Your task to perform on an android device: turn off notifications in google photos Image 0: 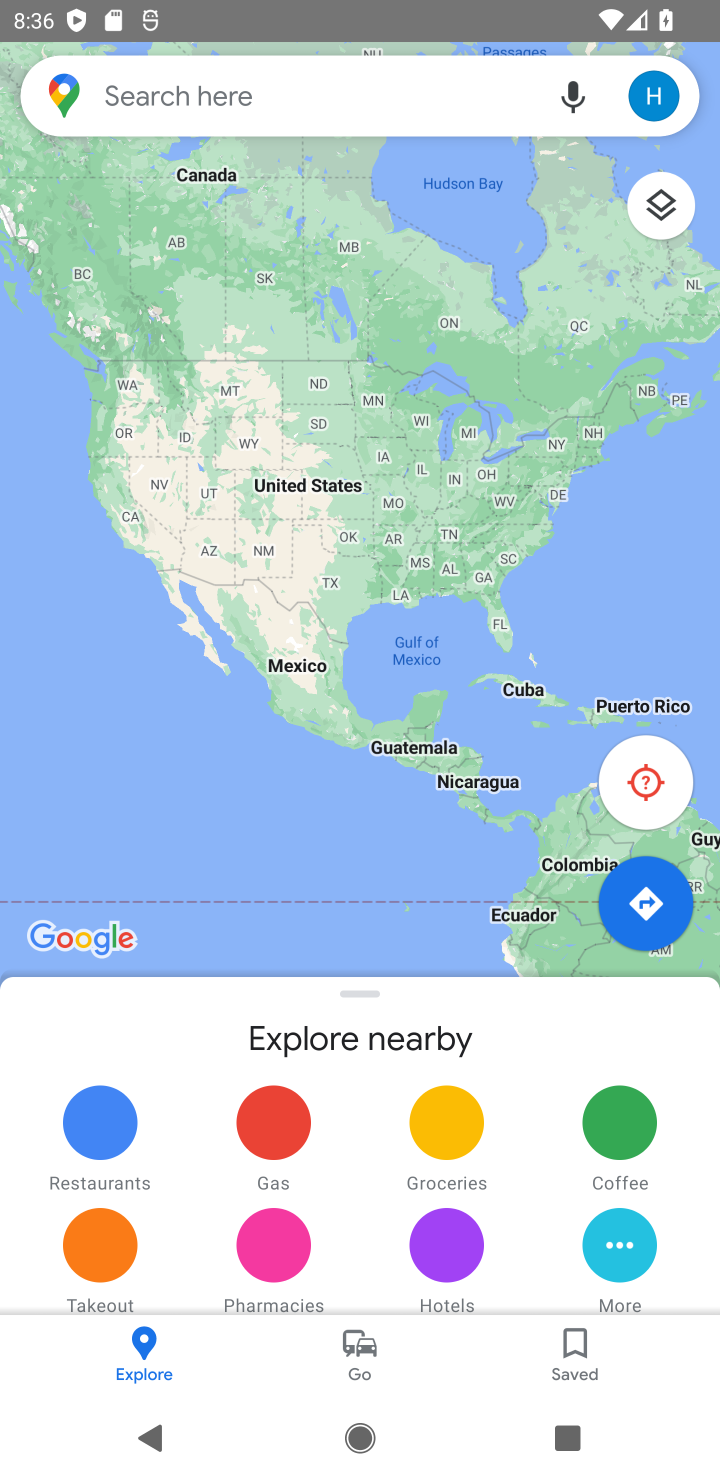
Step 0: press home button
Your task to perform on an android device: turn off notifications in google photos Image 1: 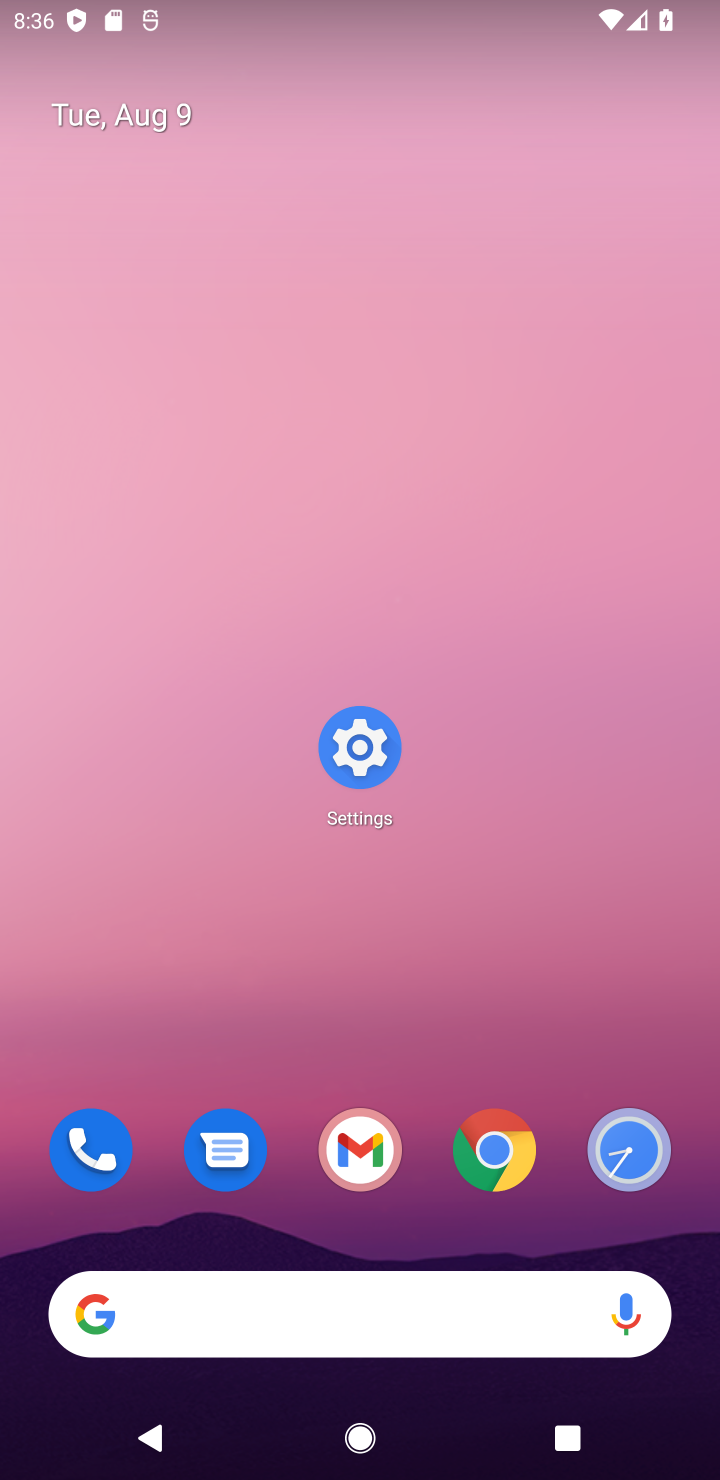
Step 1: drag from (435, 1066) to (619, 114)
Your task to perform on an android device: turn off notifications in google photos Image 2: 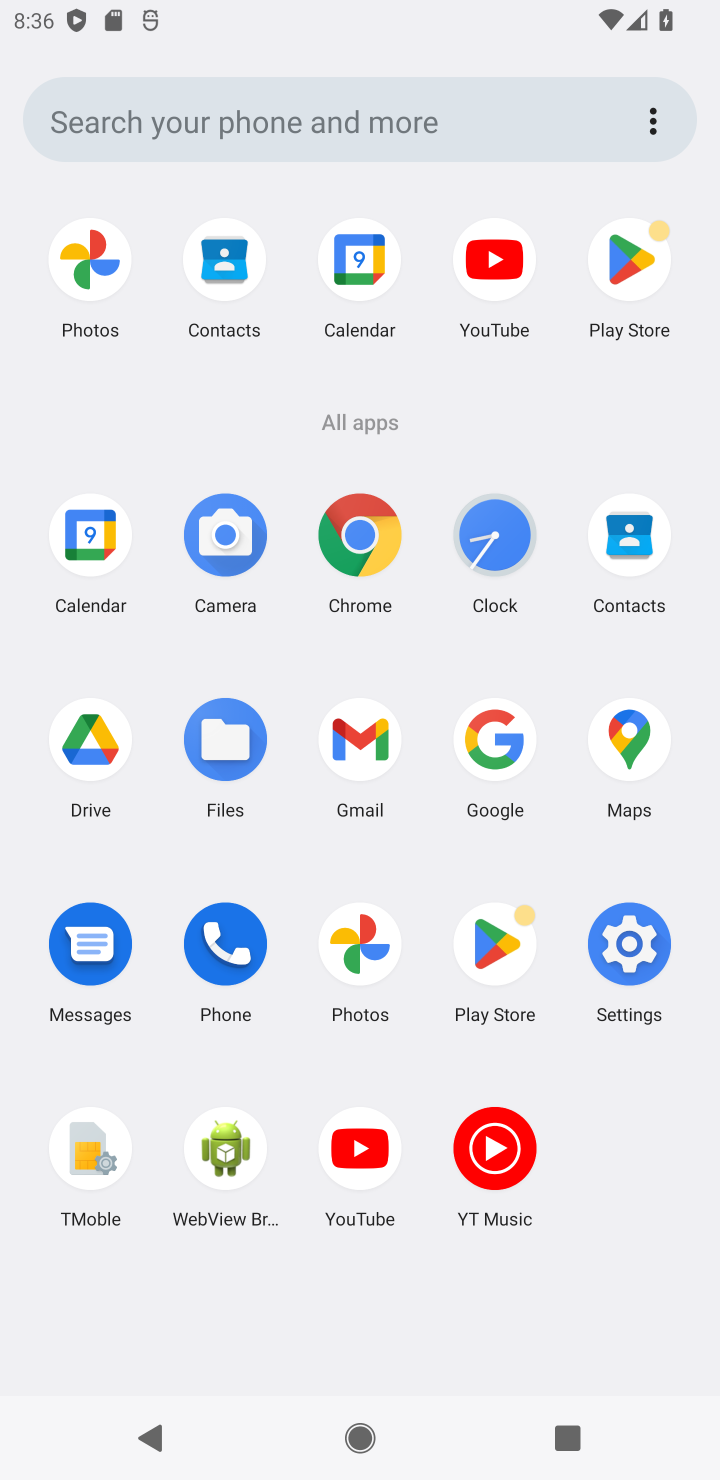
Step 2: click (374, 951)
Your task to perform on an android device: turn off notifications in google photos Image 3: 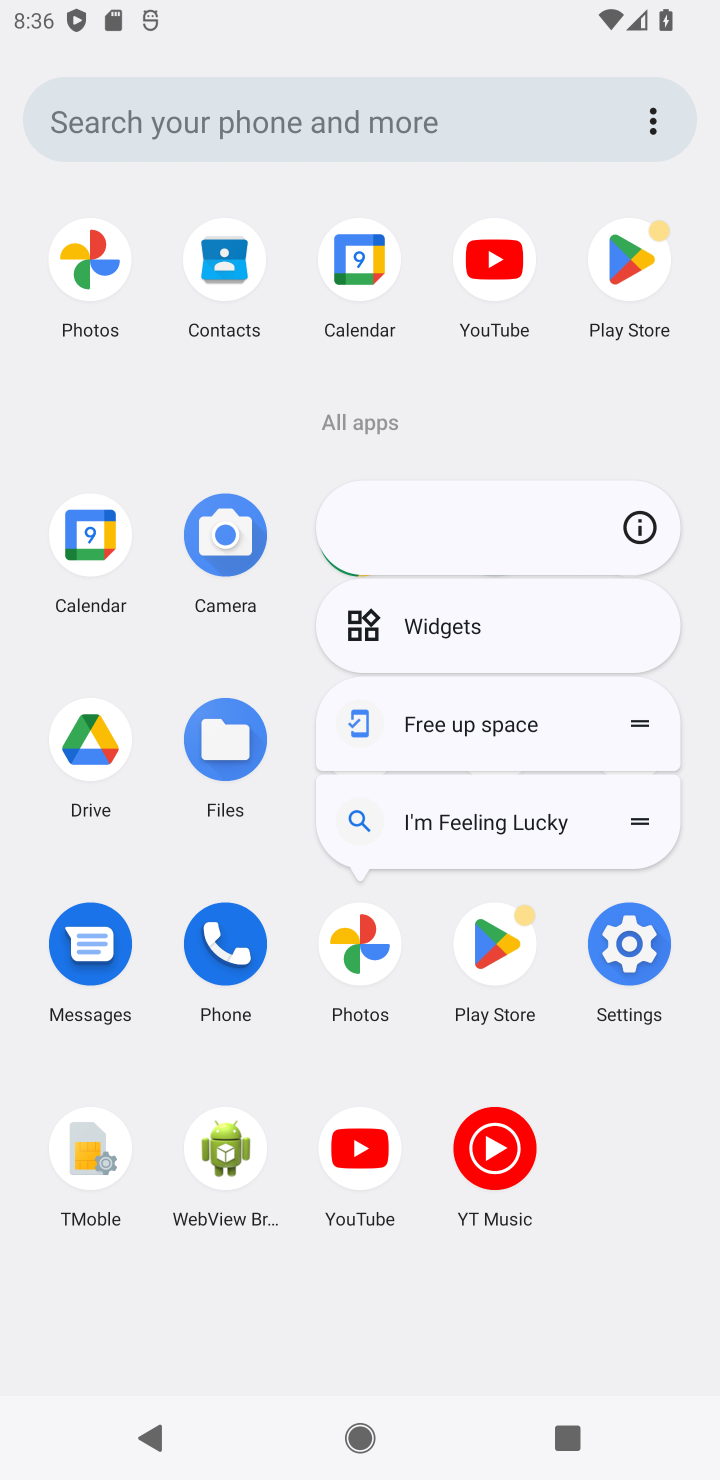
Step 3: click (374, 953)
Your task to perform on an android device: turn off notifications in google photos Image 4: 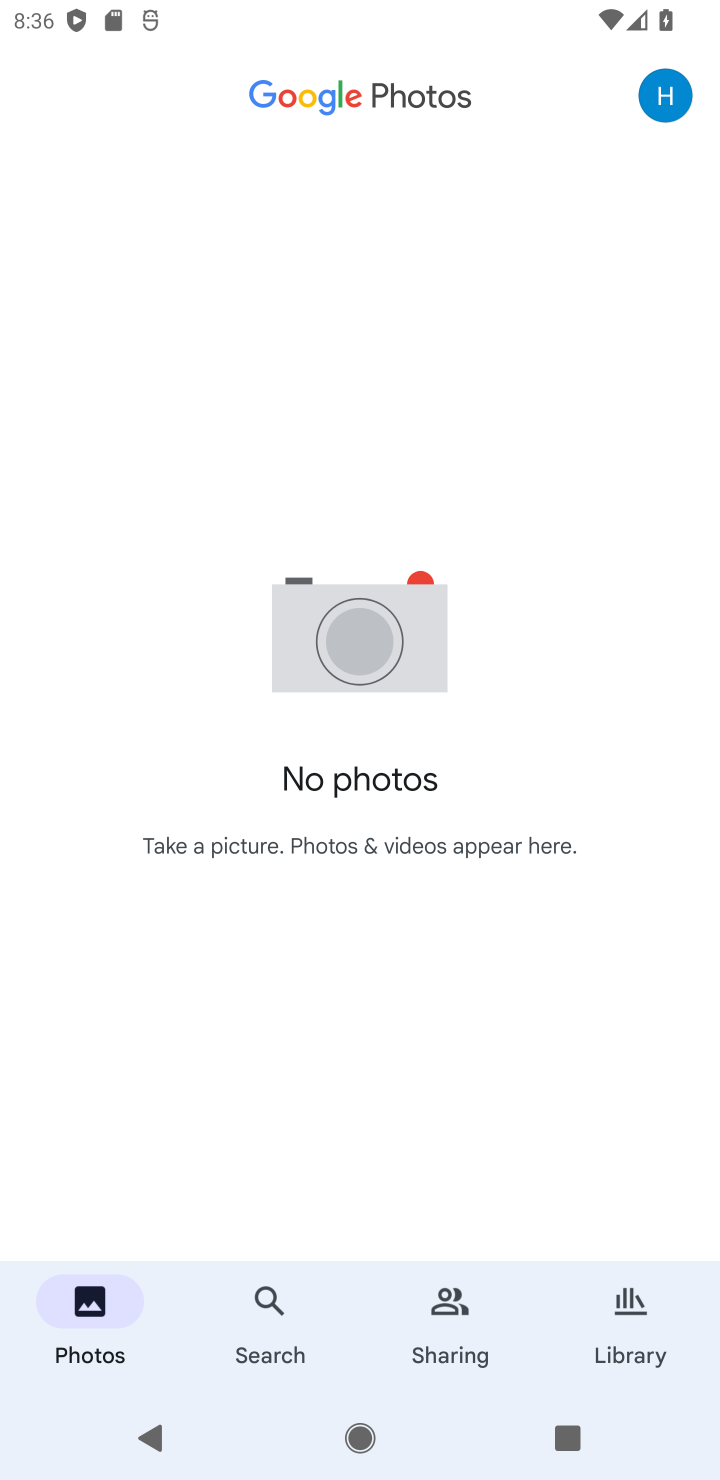
Step 4: click (670, 90)
Your task to perform on an android device: turn off notifications in google photos Image 5: 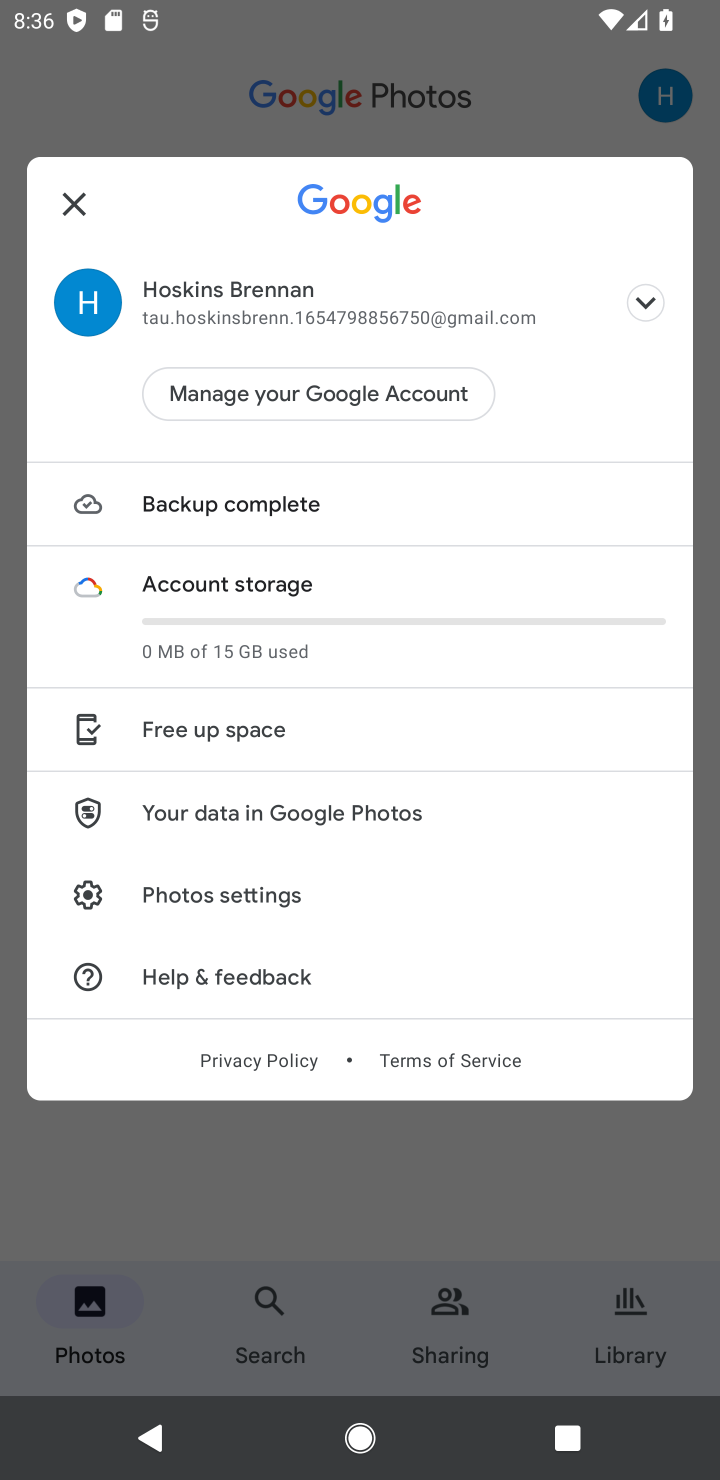
Step 5: click (238, 899)
Your task to perform on an android device: turn off notifications in google photos Image 6: 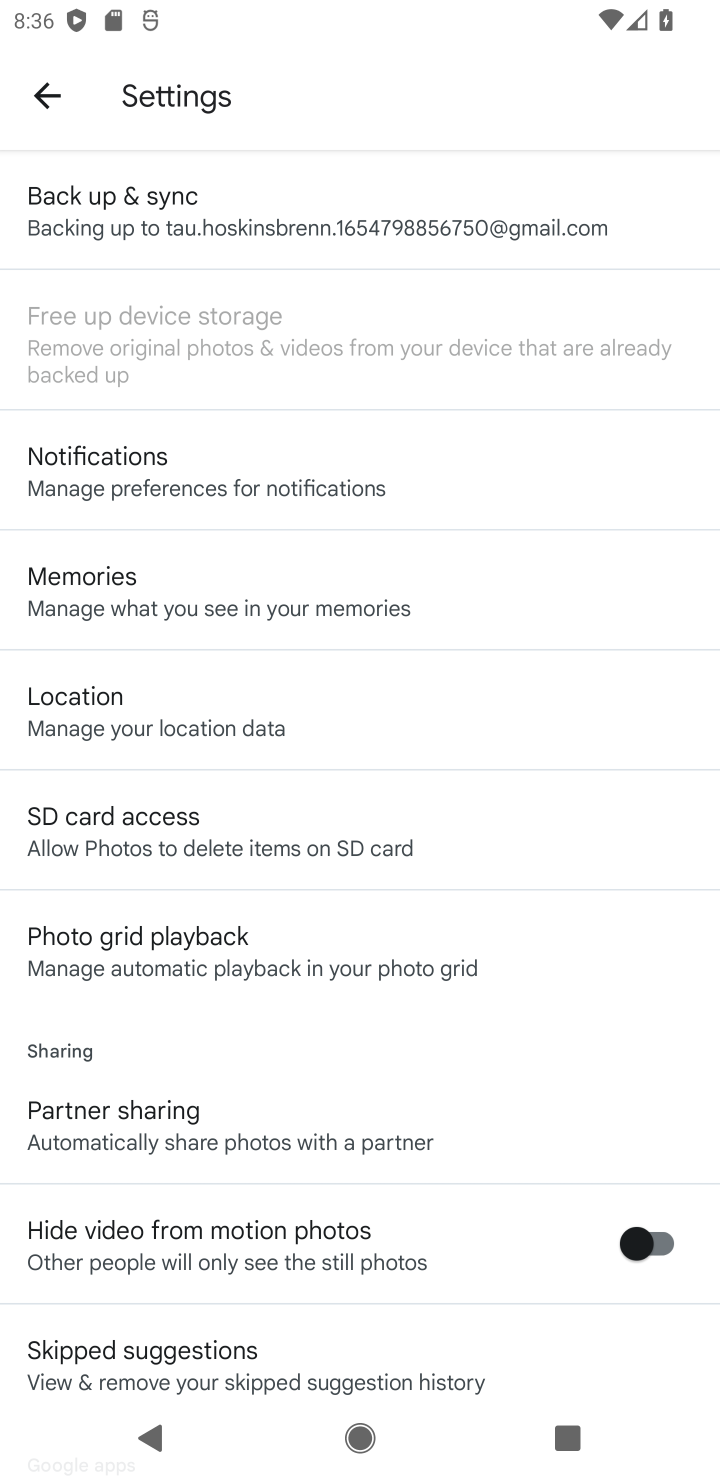
Step 6: click (324, 487)
Your task to perform on an android device: turn off notifications in google photos Image 7: 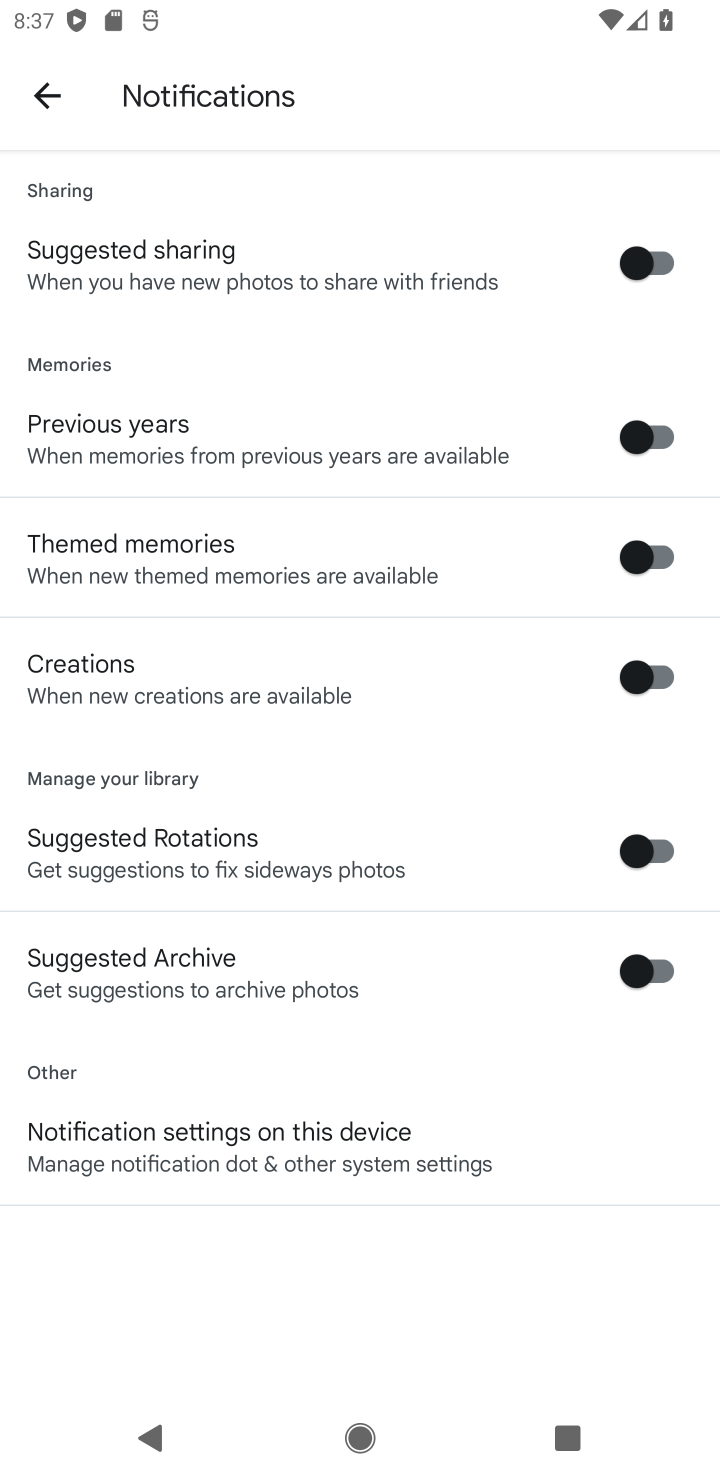
Step 7: click (311, 1158)
Your task to perform on an android device: turn off notifications in google photos Image 8: 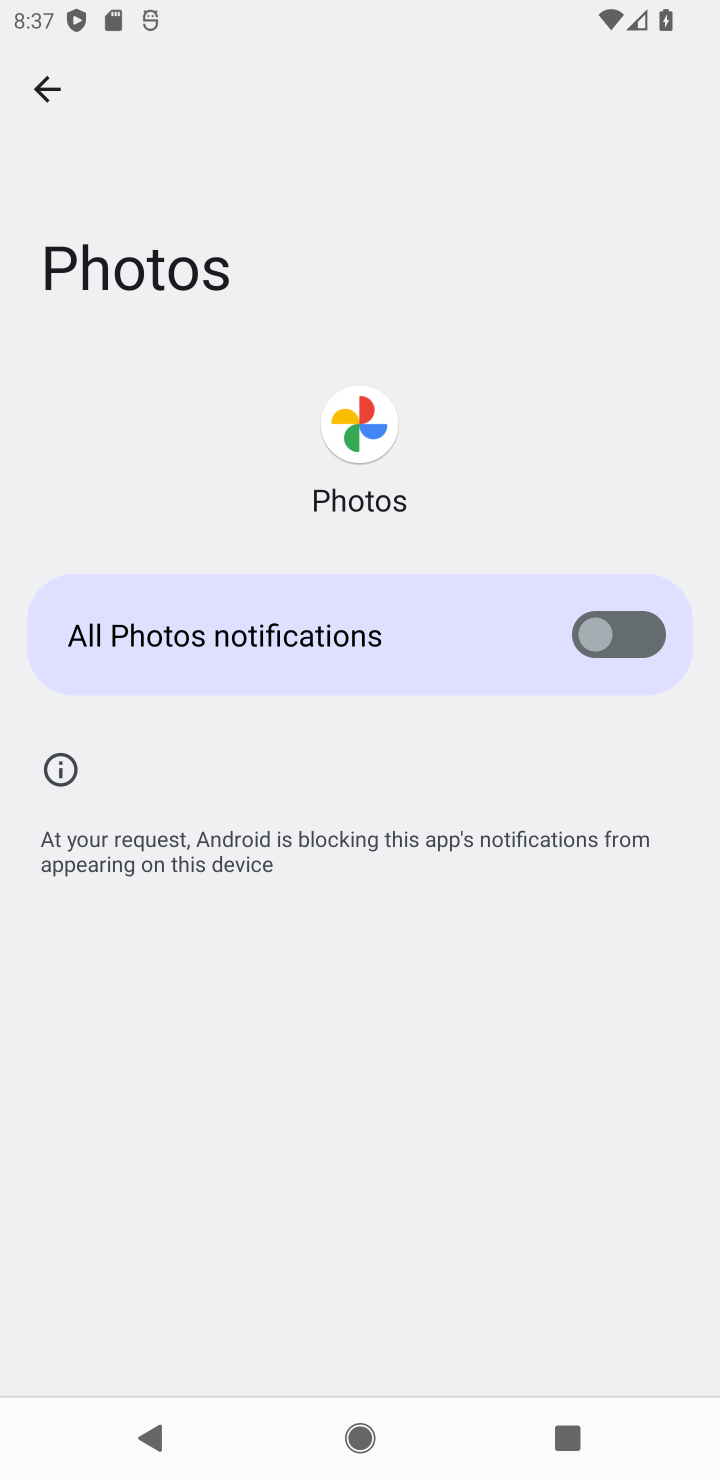
Step 8: task complete